Your task to perform on an android device: read, delete, or share a saved page in the chrome app Image 0: 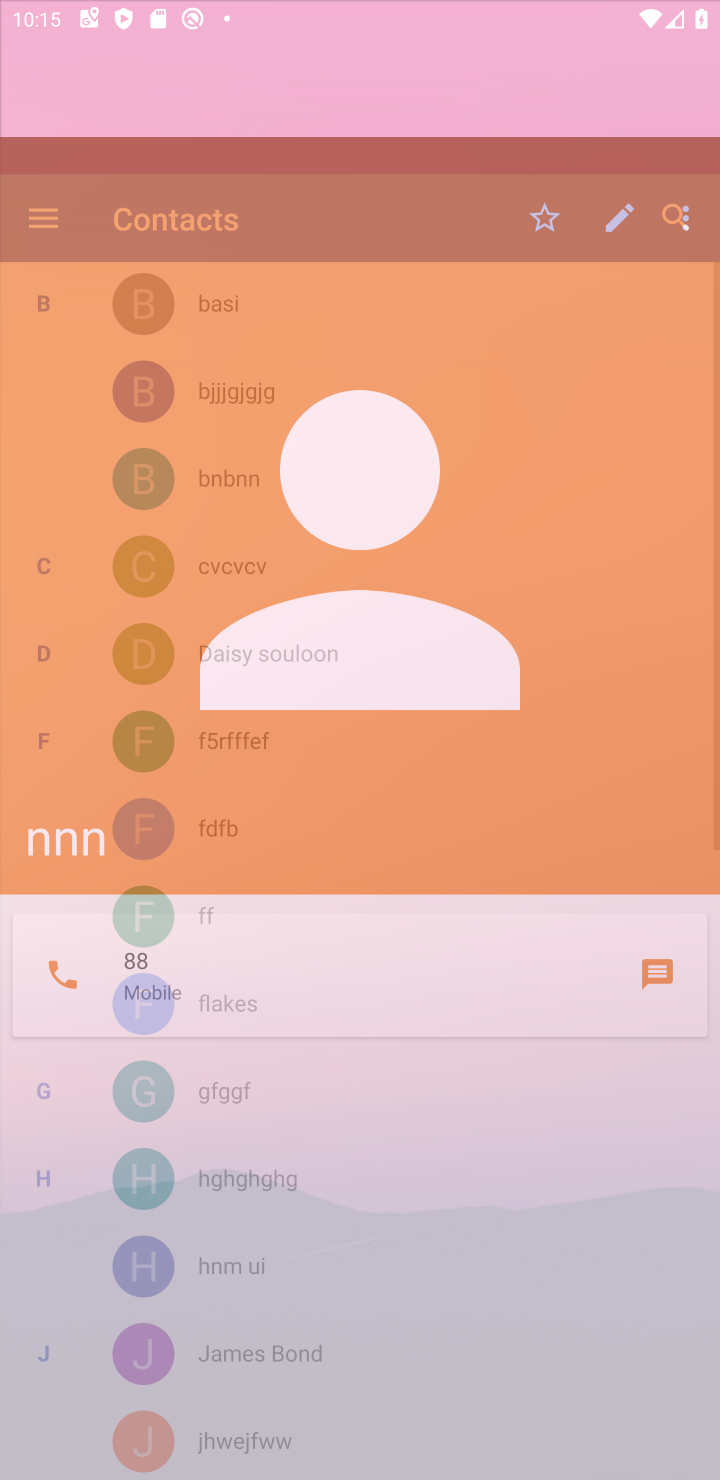
Step 0: press home button
Your task to perform on an android device: read, delete, or share a saved page in the chrome app Image 1: 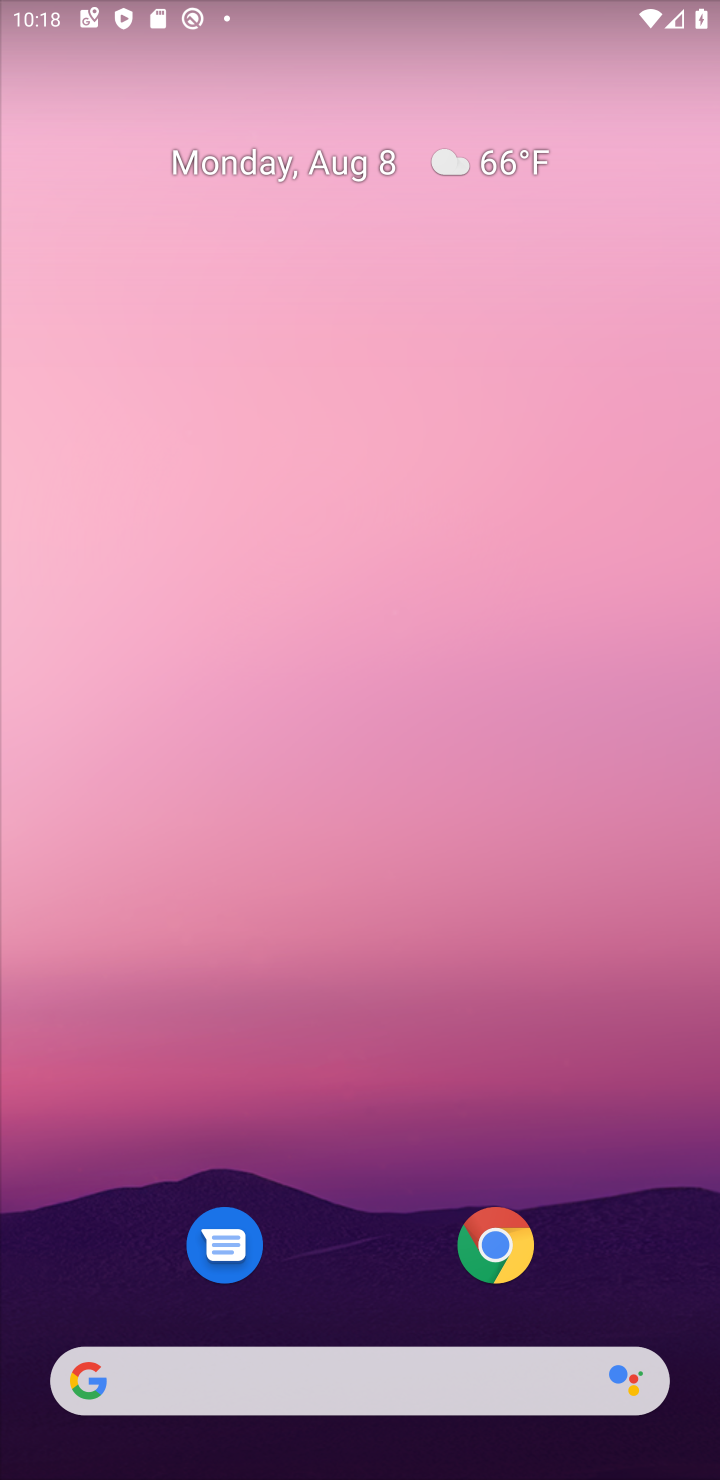
Step 1: click (497, 1246)
Your task to perform on an android device: read, delete, or share a saved page in the chrome app Image 2: 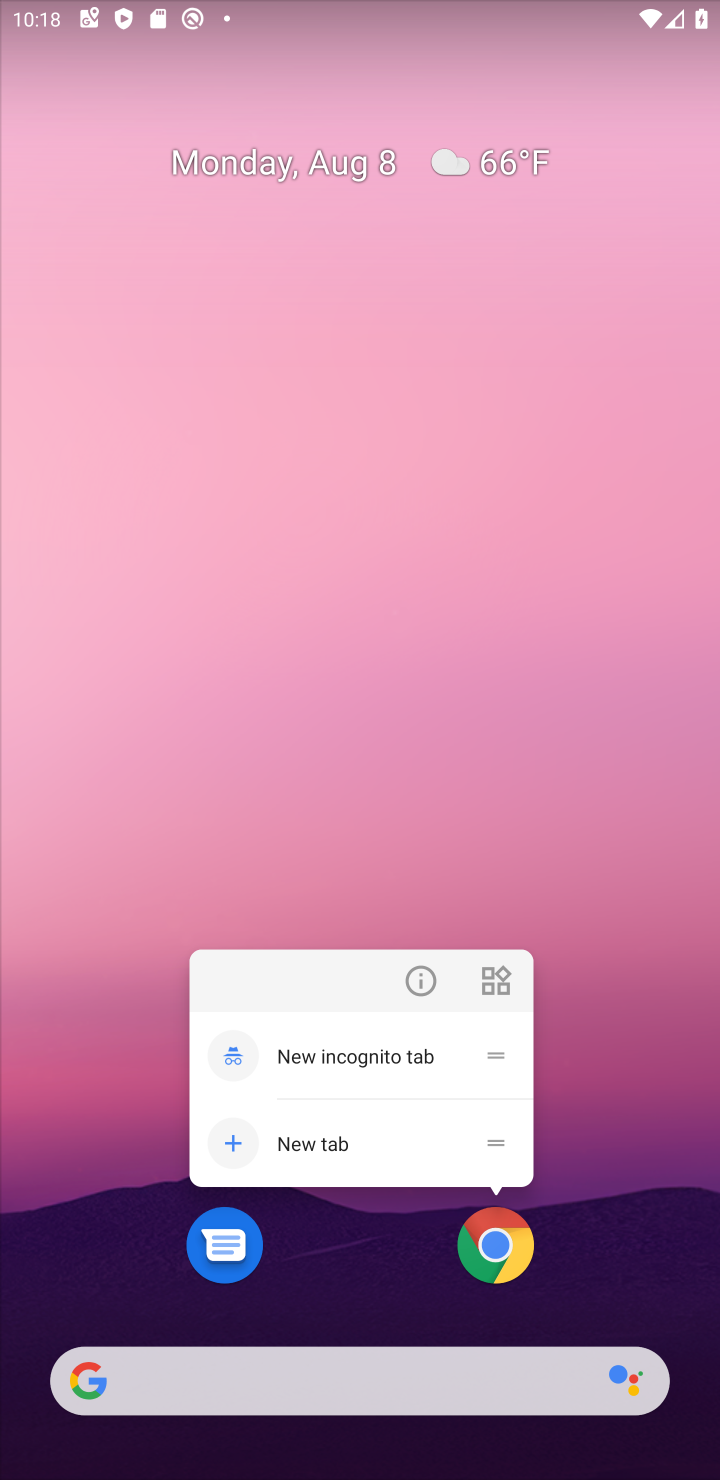
Step 2: click (506, 1247)
Your task to perform on an android device: read, delete, or share a saved page in the chrome app Image 3: 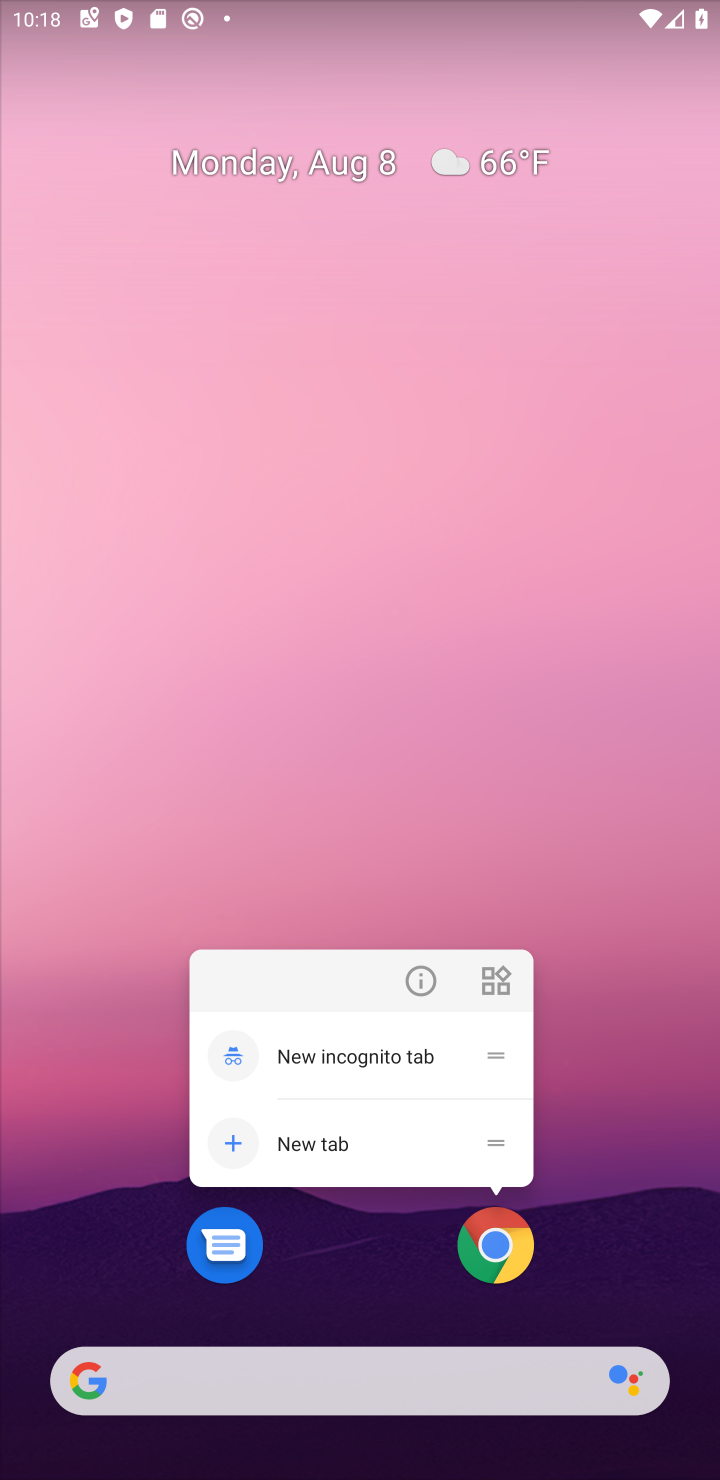
Step 3: click (498, 1256)
Your task to perform on an android device: read, delete, or share a saved page in the chrome app Image 4: 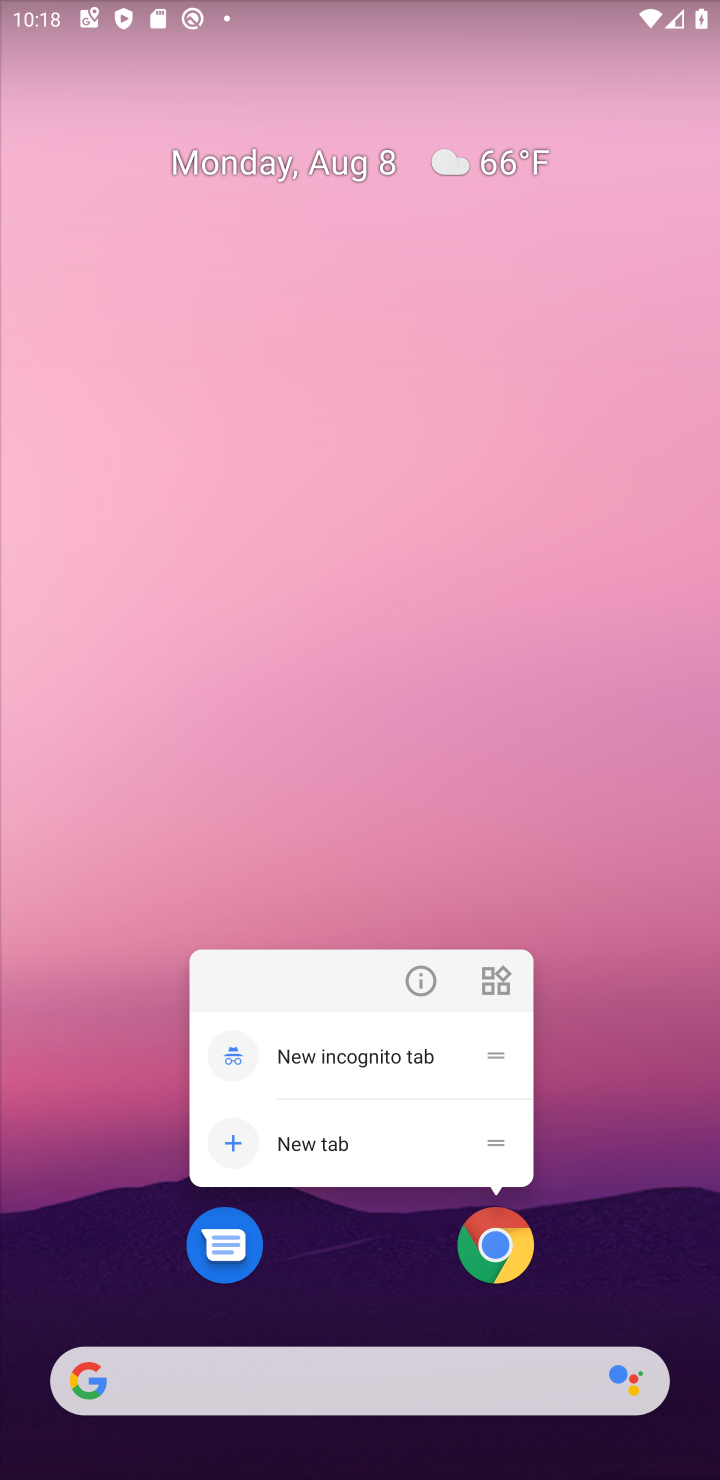
Step 4: click (486, 1221)
Your task to perform on an android device: read, delete, or share a saved page in the chrome app Image 5: 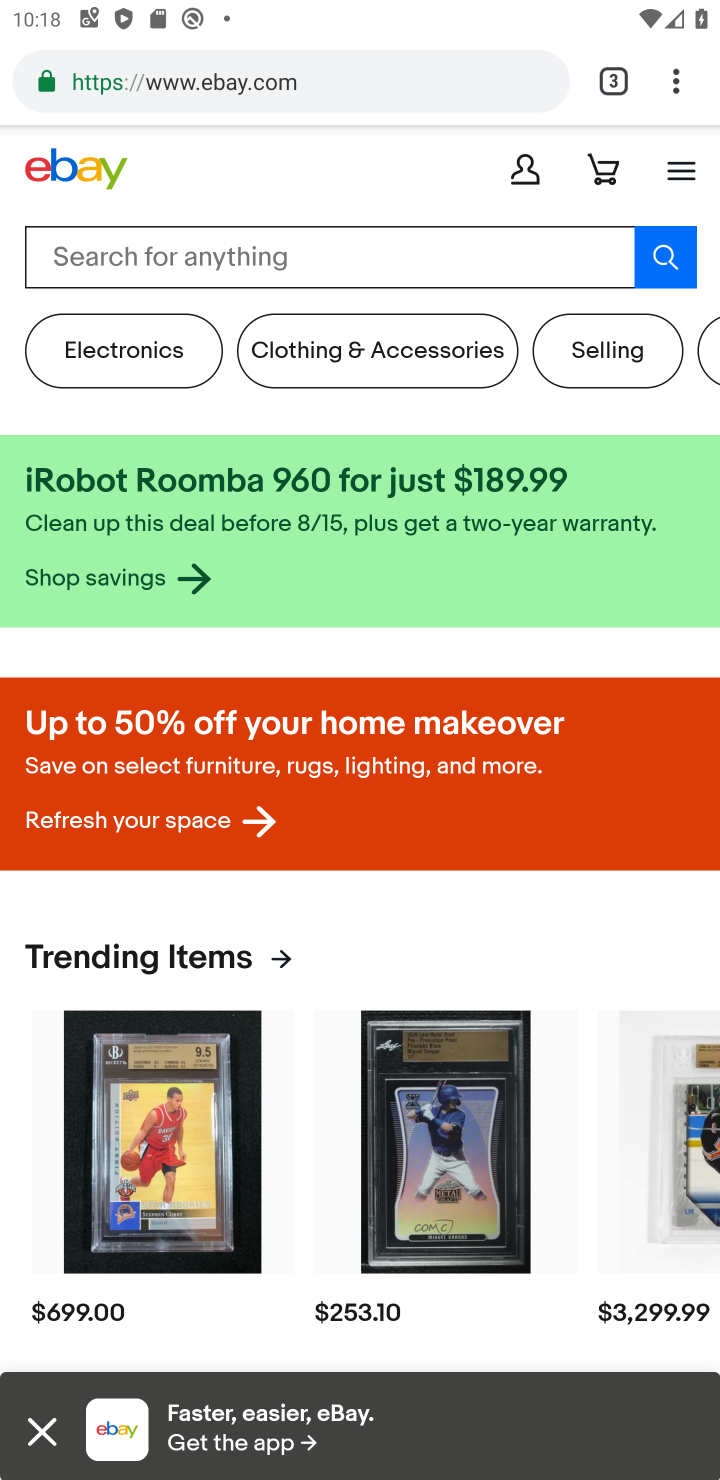
Step 5: click (666, 69)
Your task to perform on an android device: read, delete, or share a saved page in the chrome app Image 6: 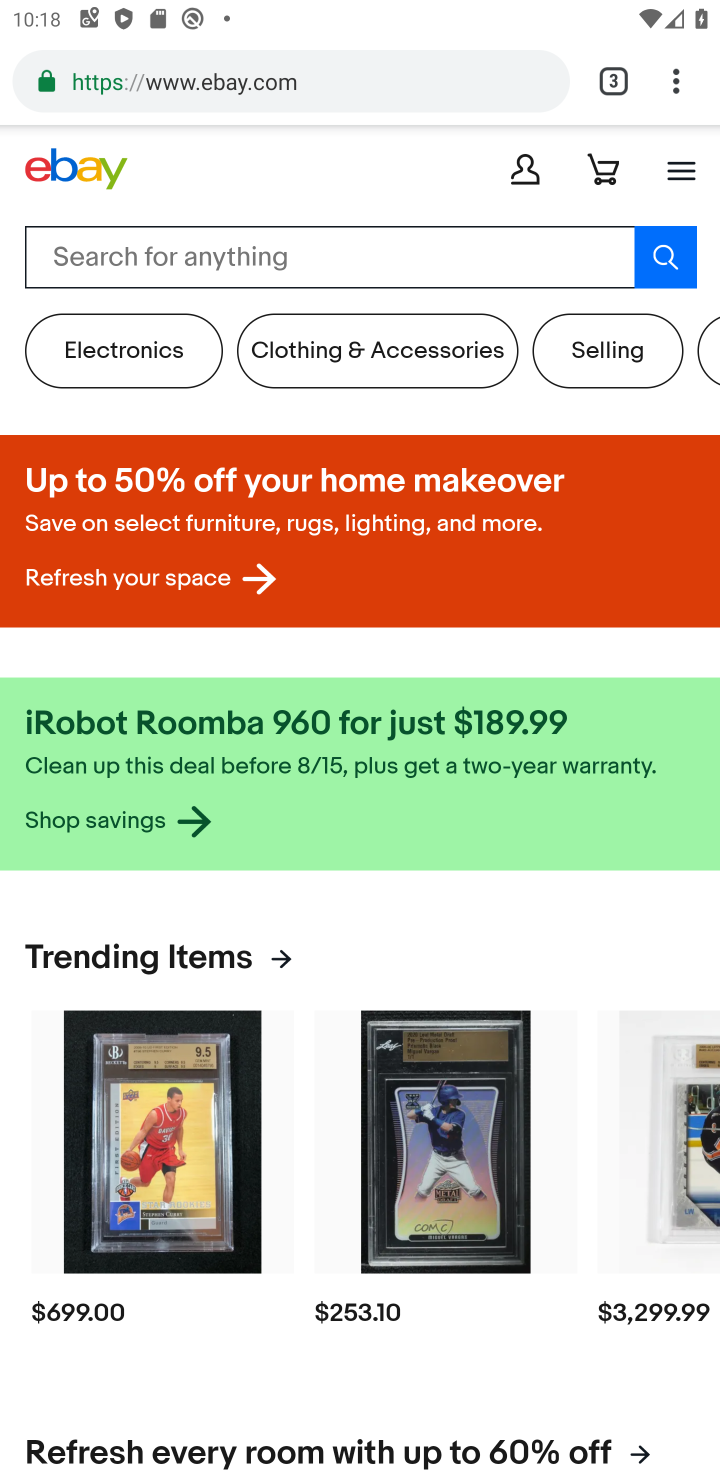
Step 6: click (675, 92)
Your task to perform on an android device: read, delete, or share a saved page in the chrome app Image 7: 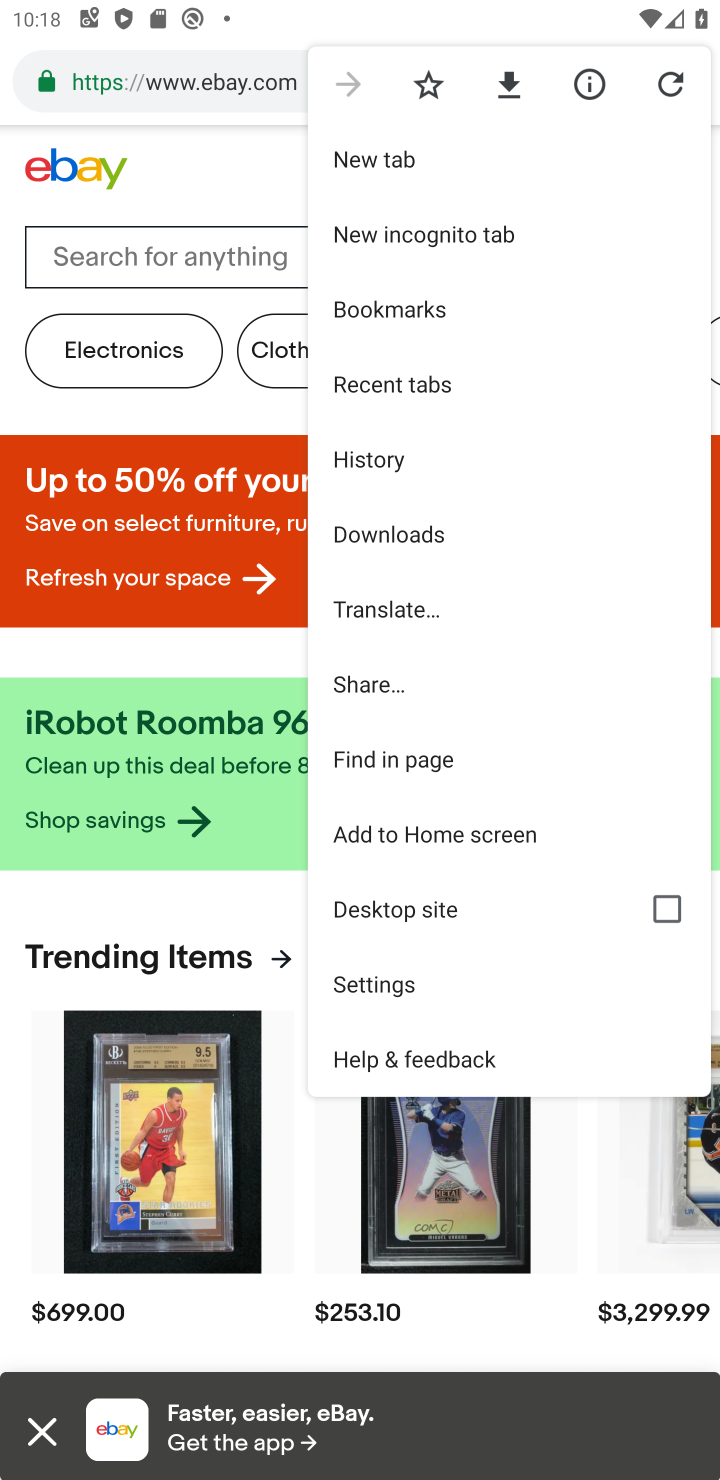
Step 7: click (385, 526)
Your task to perform on an android device: read, delete, or share a saved page in the chrome app Image 8: 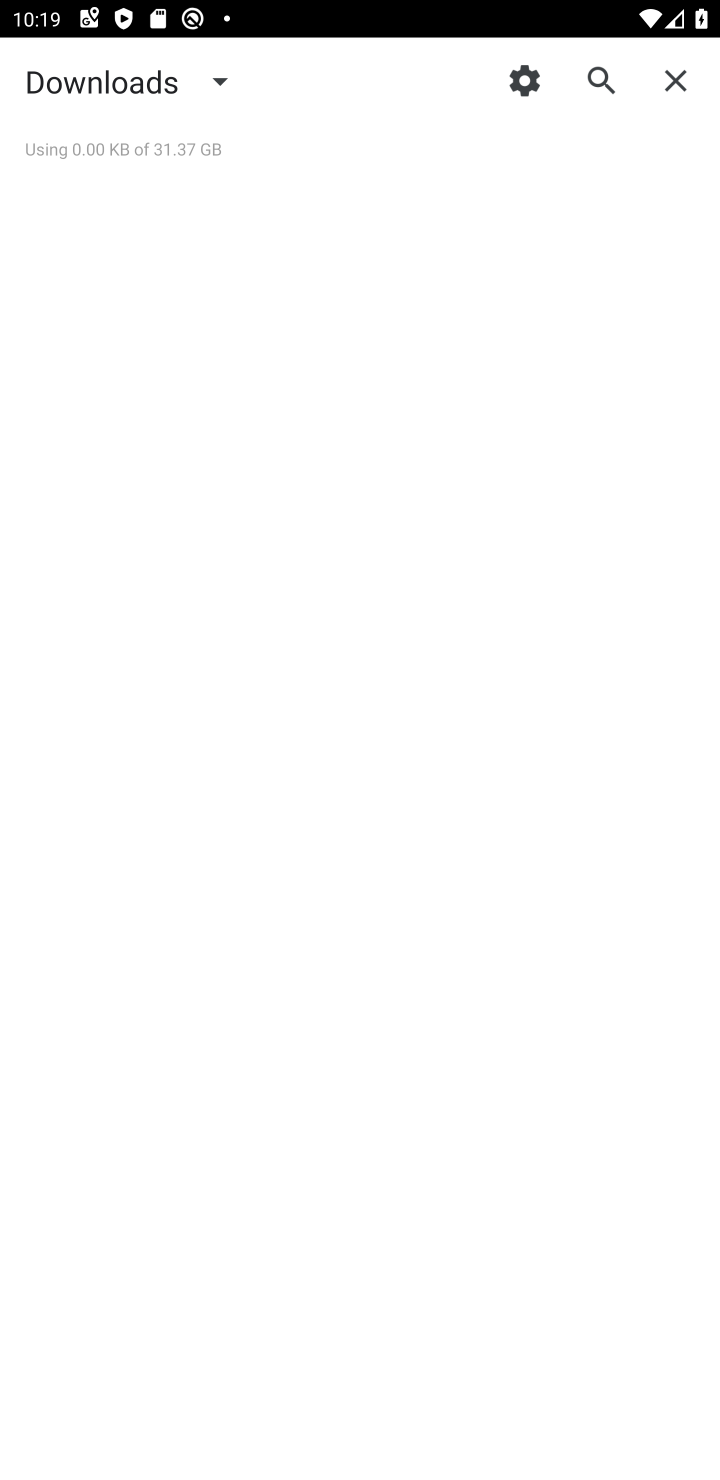
Step 8: task complete